Your task to perform on an android device: Open the Play Movies app and select the watchlist tab. Image 0: 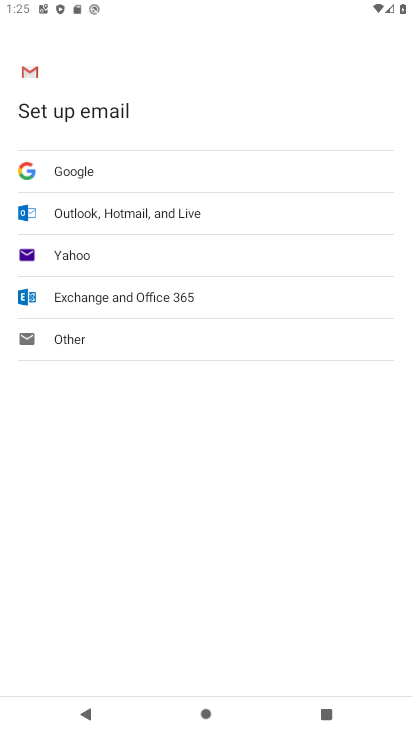
Step 0: press home button
Your task to perform on an android device: Open the Play Movies app and select the watchlist tab. Image 1: 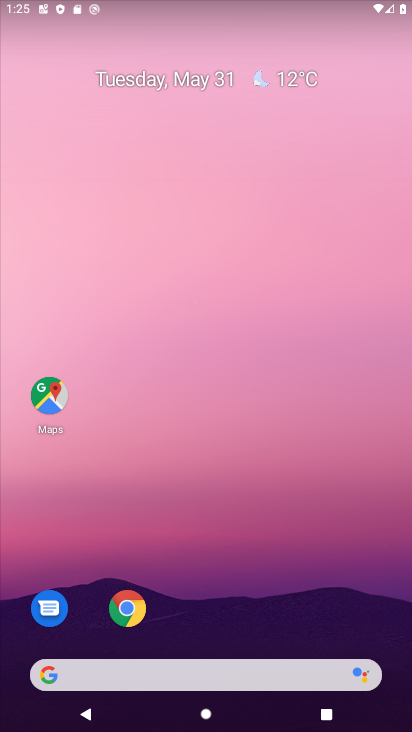
Step 1: drag from (356, 572) to (317, 133)
Your task to perform on an android device: Open the Play Movies app and select the watchlist tab. Image 2: 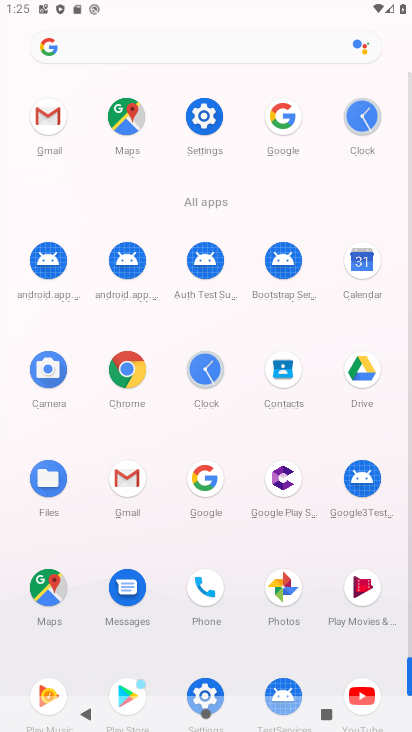
Step 2: click (367, 590)
Your task to perform on an android device: Open the Play Movies app and select the watchlist tab. Image 3: 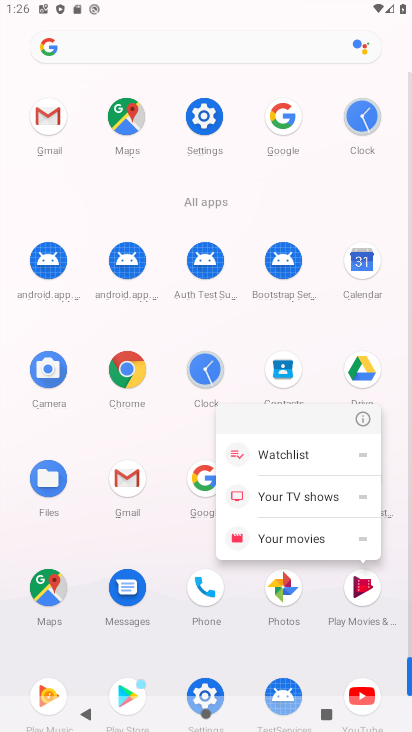
Step 3: click (362, 606)
Your task to perform on an android device: Open the Play Movies app and select the watchlist tab. Image 4: 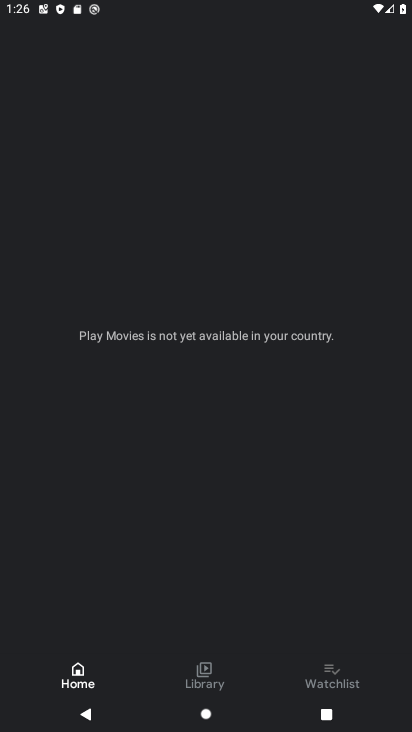
Step 4: click (329, 684)
Your task to perform on an android device: Open the Play Movies app and select the watchlist tab. Image 5: 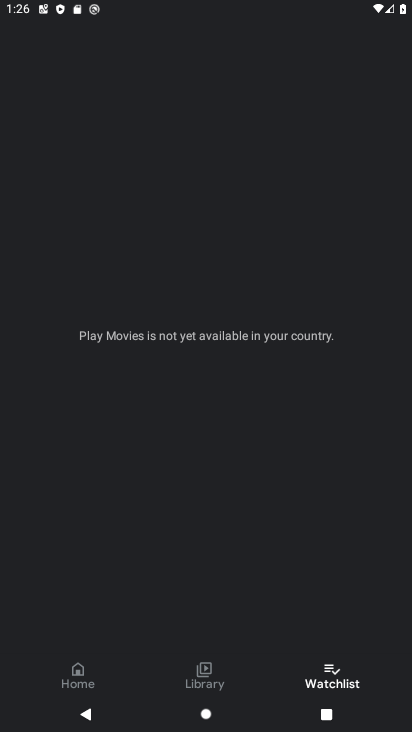
Step 5: task complete